Your task to perform on an android device: Go to calendar. Show me events next week Image 0: 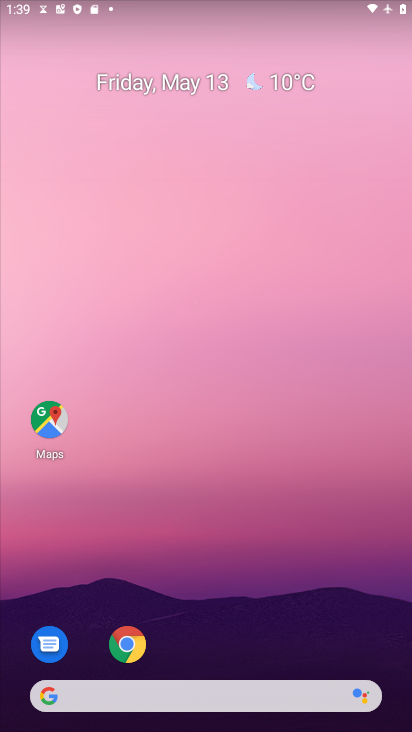
Step 0: drag from (218, 717) to (217, 210)
Your task to perform on an android device: Go to calendar. Show me events next week Image 1: 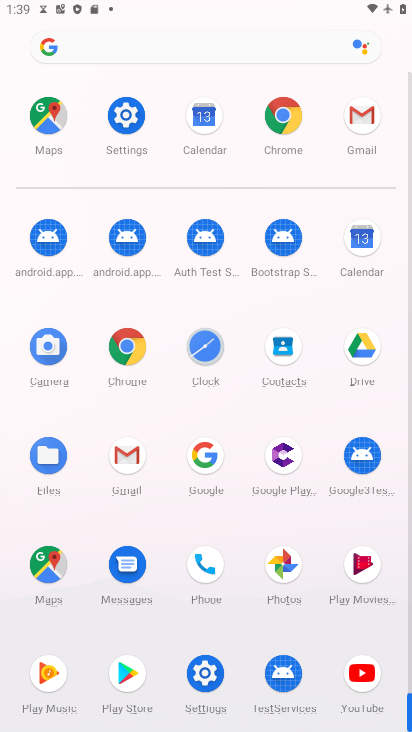
Step 1: click (363, 244)
Your task to perform on an android device: Go to calendar. Show me events next week Image 2: 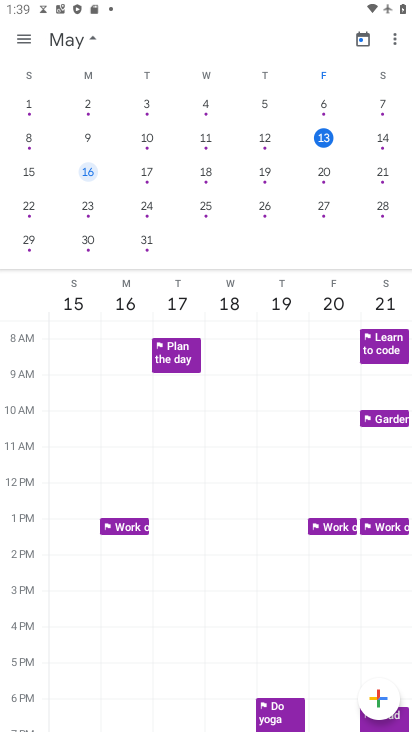
Step 2: click (90, 167)
Your task to perform on an android device: Go to calendar. Show me events next week Image 3: 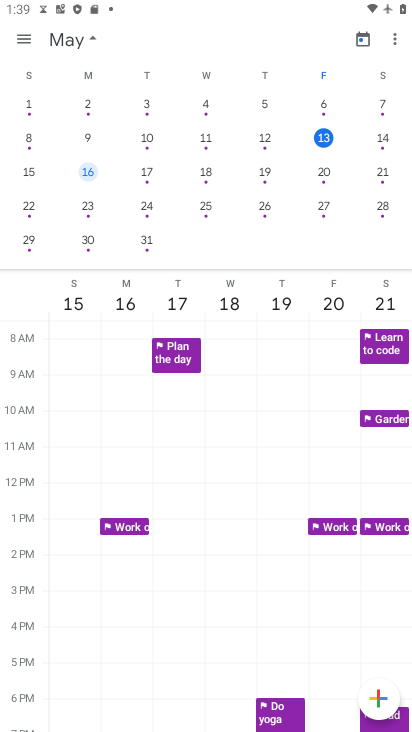
Step 3: click (22, 39)
Your task to perform on an android device: Go to calendar. Show me events next week Image 4: 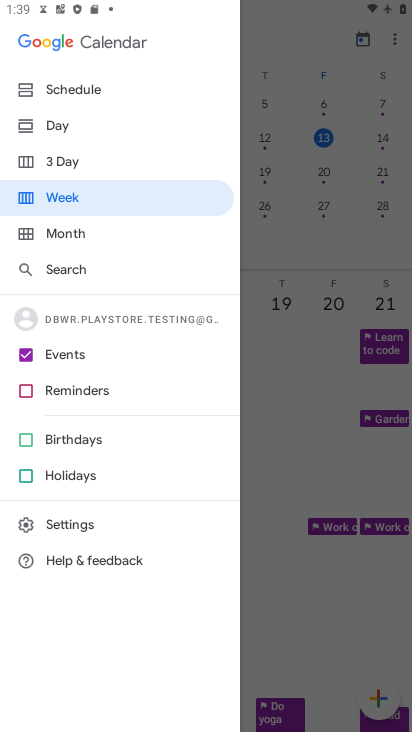
Step 4: click (70, 203)
Your task to perform on an android device: Go to calendar. Show me events next week Image 5: 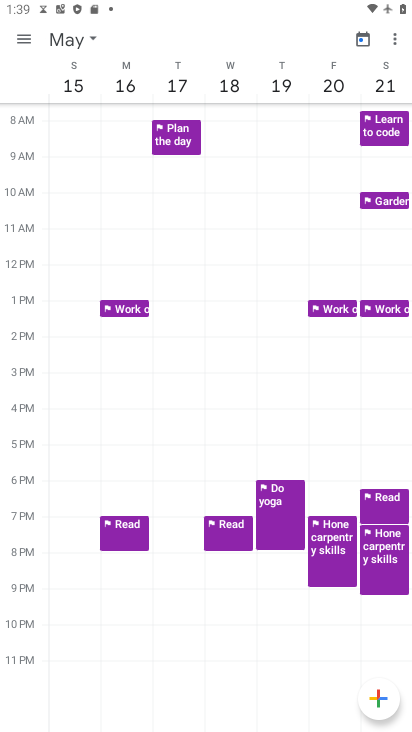
Step 5: task complete